Your task to perform on an android device: Open accessibility settings Image 0: 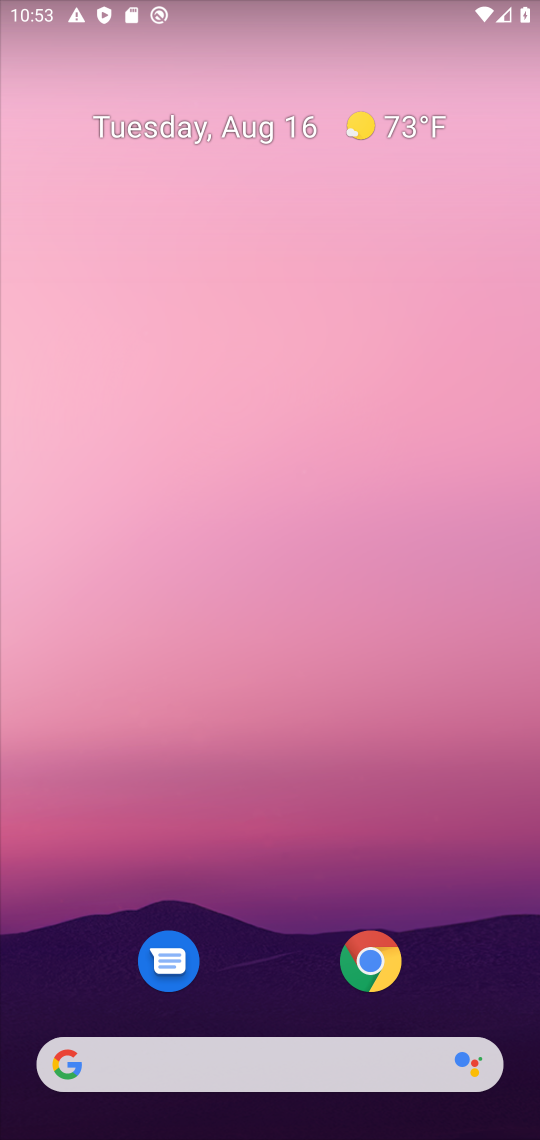
Step 0: drag from (240, 910) to (267, 179)
Your task to perform on an android device: Open accessibility settings Image 1: 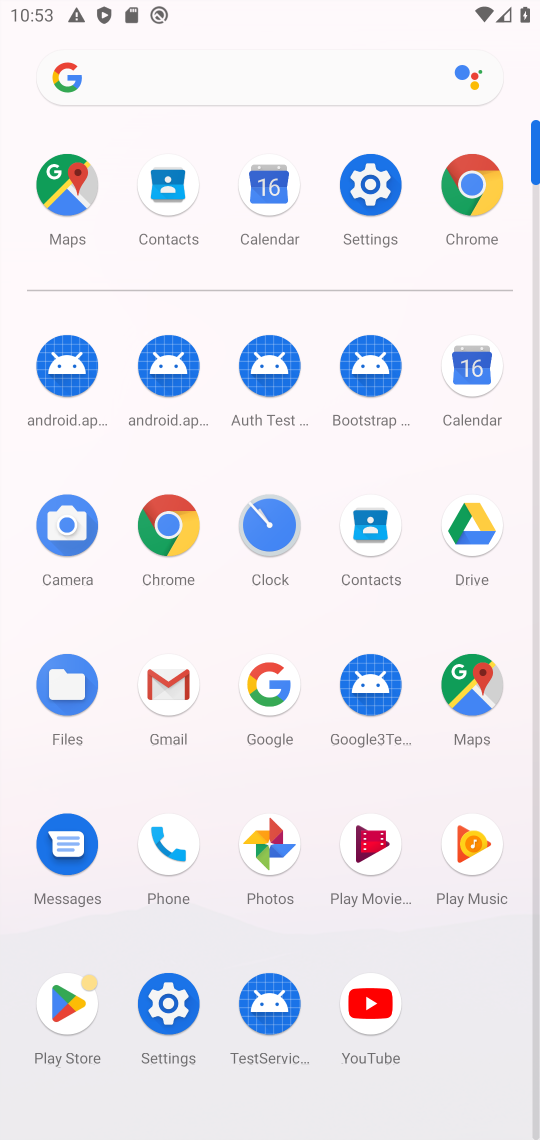
Step 1: click (175, 1001)
Your task to perform on an android device: Open accessibility settings Image 2: 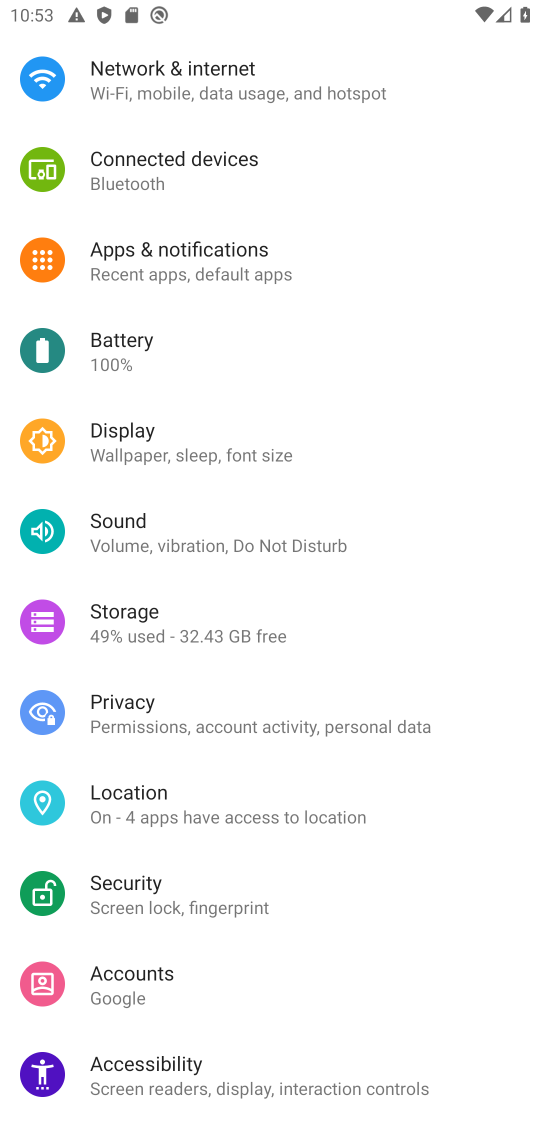
Step 2: task complete